Your task to perform on an android device: Go to Google maps Image 0: 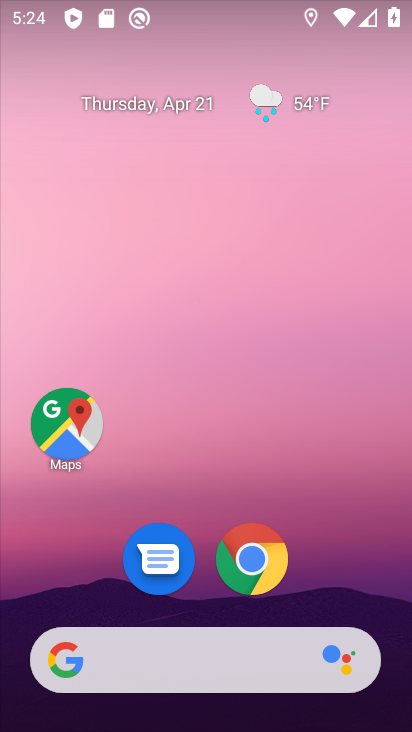
Step 0: drag from (333, 546) to (362, 29)
Your task to perform on an android device: Go to Google maps Image 1: 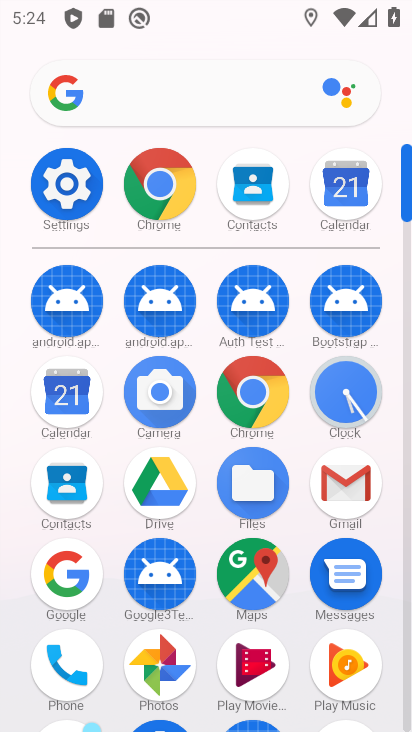
Step 1: click (249, 588)
Your task to perform on an android device: Go to Google maps Image 2: 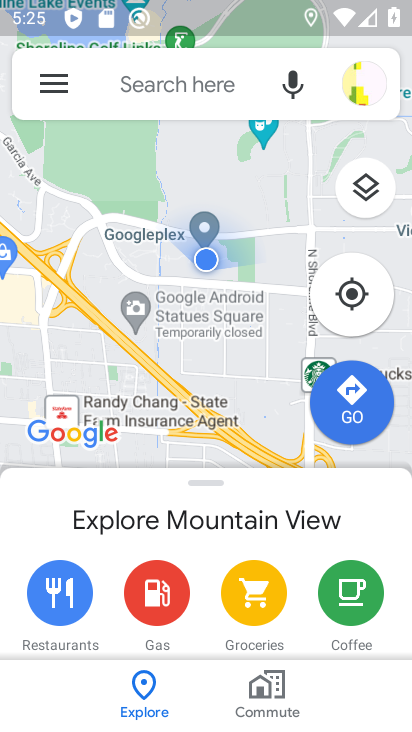
Step 2: task complete